Your task to perform on an android device: Go to location settings Image 0: 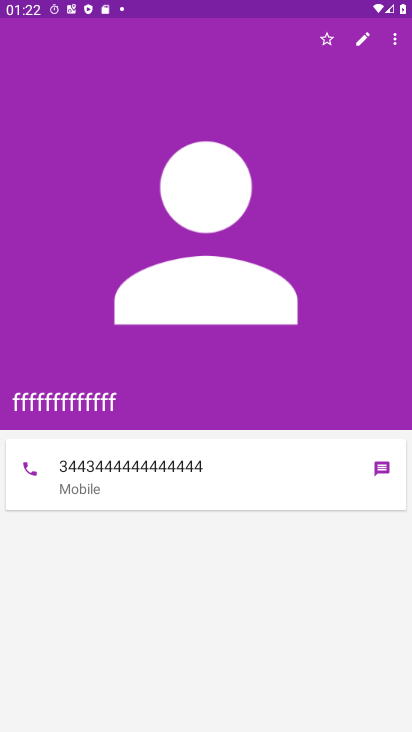
Step 0: press home button
Your task to perform on an android device: Go to location settings Image 1: 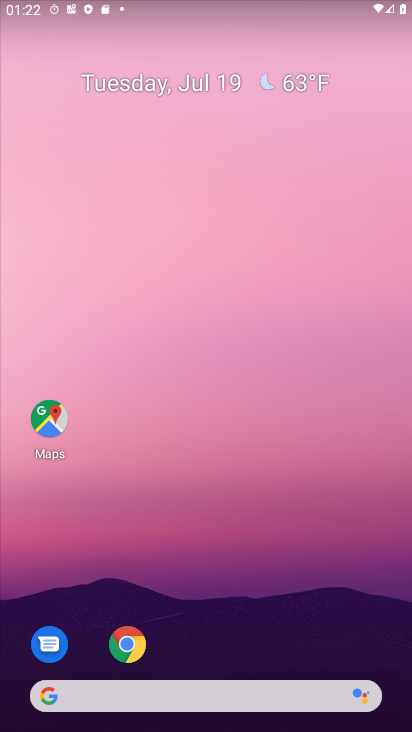
Step 1: drag from (198, 676) to (191, 622)
Your task to perform on an android device: Go to location settings Image 2: 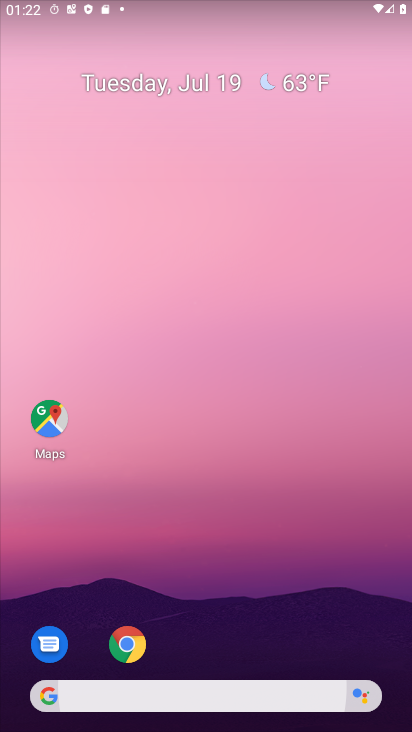
Step 2: drag from (169, 405) to (153, 113)
Your task to perform on an android device: Go to location settings Image 3: 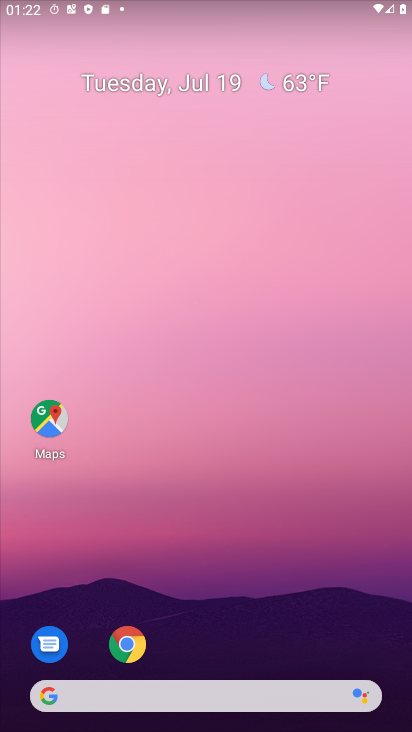
Step 3: drag from (222, 715) to (227, 271)
Your task to perform on an android device: Go to location settings Image 4: 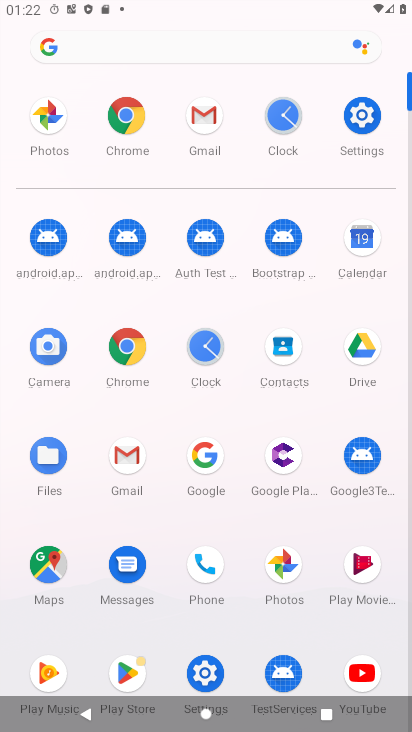
Step 4: click (353, 113)
Your task to perform on an android device: Go to location settings Image 5: 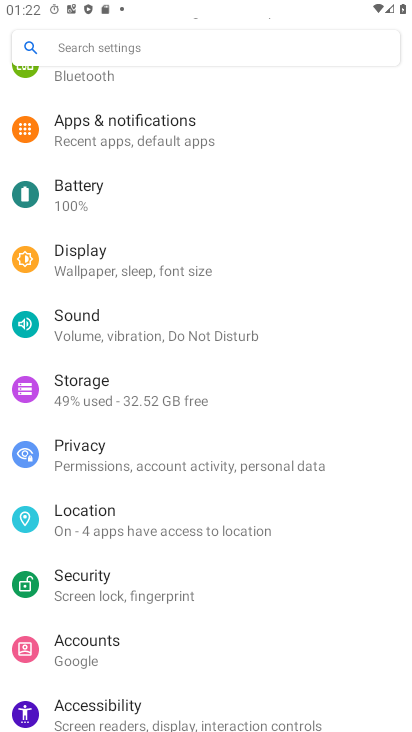
Step 5: click (95, 516)
Your task to perform on an android device: Go to location settings Image 6: 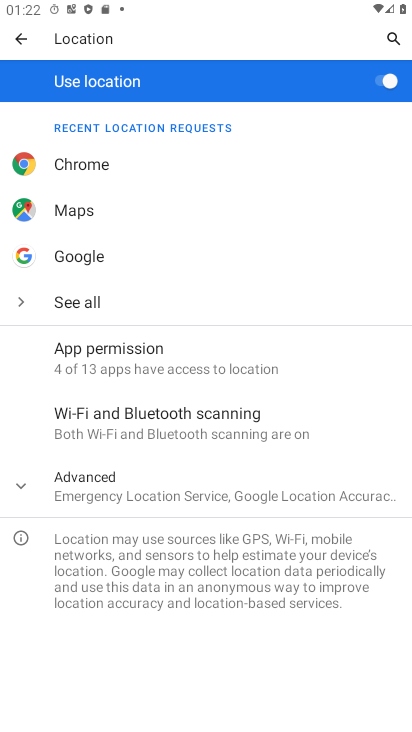
Step 6: task complete